Your task to perform on an android device: Set the phone to "Do not disturb". Image 0: 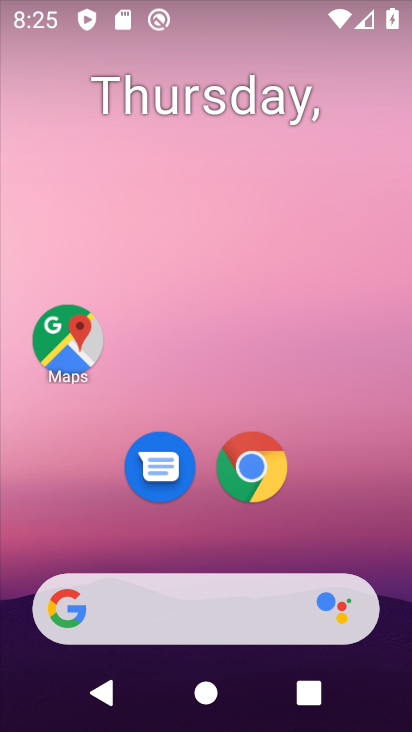
Step 0: drag from (331, 497) to (223, 91)
Your task to perform on an android device: Set the phone to "Do not disturb". Image 1: 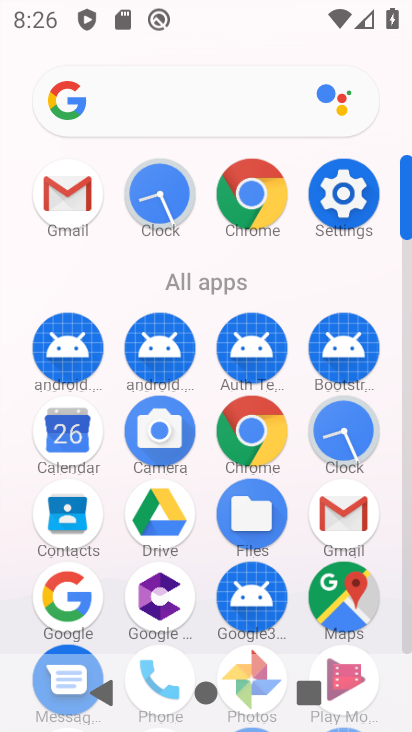
Step 1: click (343, 193)
Your task to perform on an android device: Set the phone to "Do not disturb". Image 2: 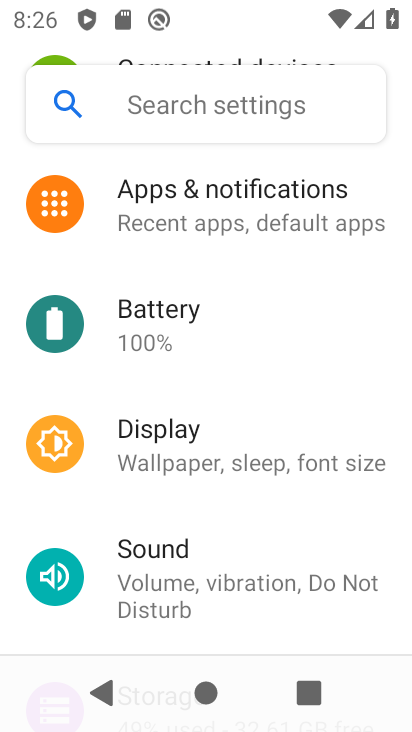
Step 2: drag from (267, 503) to (234, 277)
Your task to perform on an android device: Set the phone to "Do not disturb". Image 3: 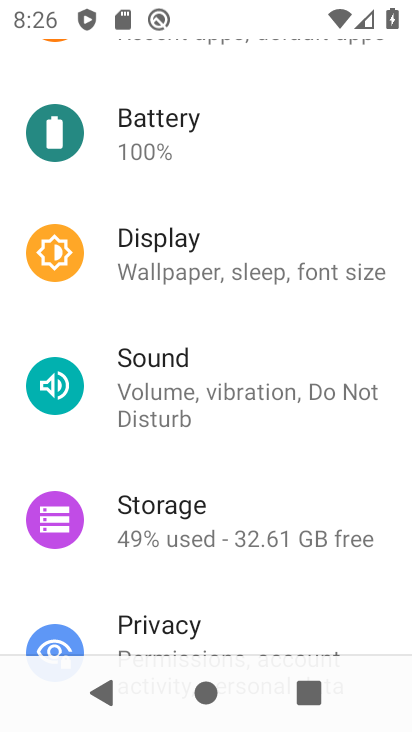
Step 3: click (141, 353)
Your task to perform on an android device: Set the phone to "Do not disturb". Image 4: 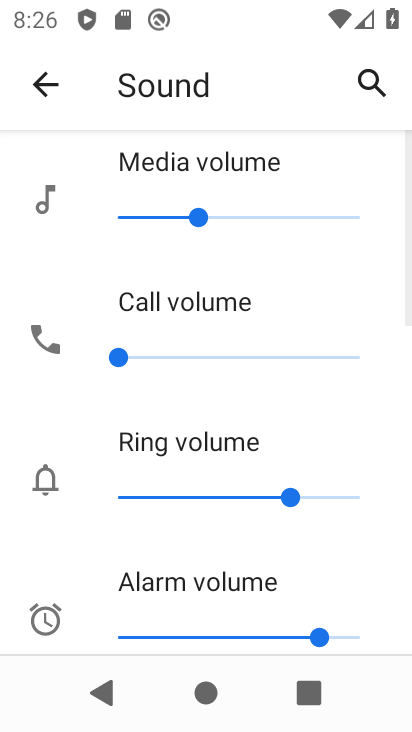
Step 4: drag from (186, 442) to (142, 175)
Your task to perform on an android device: Set the phone to "Do not disturb". Image 5: 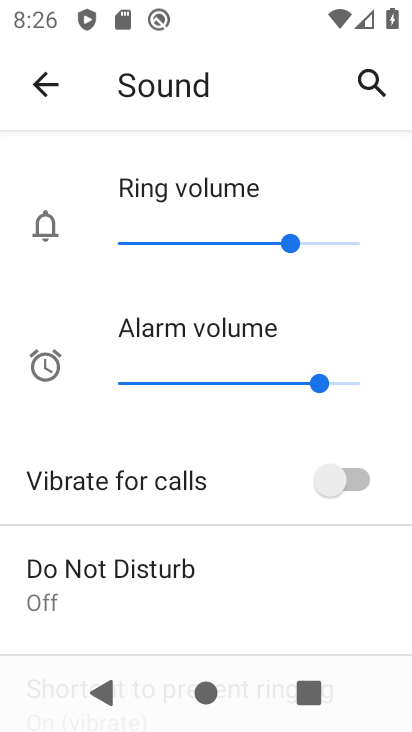
Step 5: click (150, 561)
Your task to perform on an android device: Set the phone to "Do not disturb". Image 6: 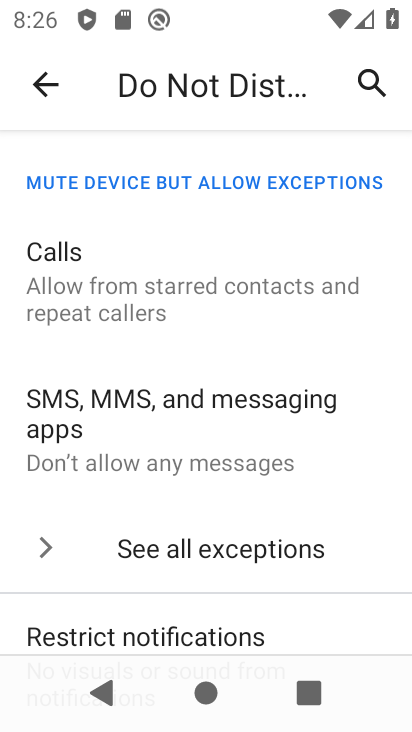
Step 6: drag from (264, 611) to (168, 150)
Your task to perform on an android device: Set the phone to "Do not disturb". Image 7: 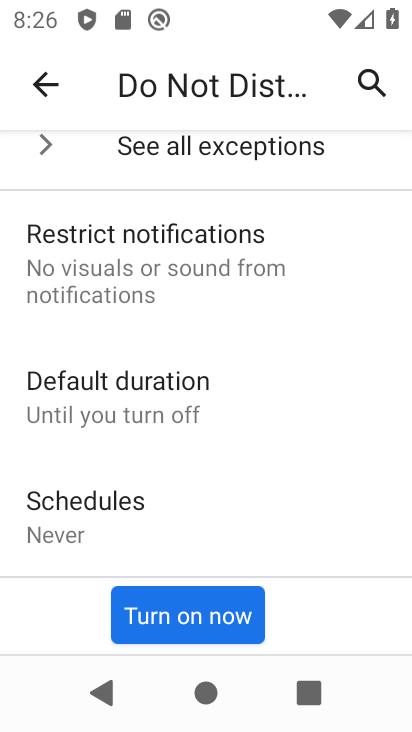
Step 7: click (187, 620)
Your task to perform on an android device: Set the phone to "Do not disturb". Image 8: 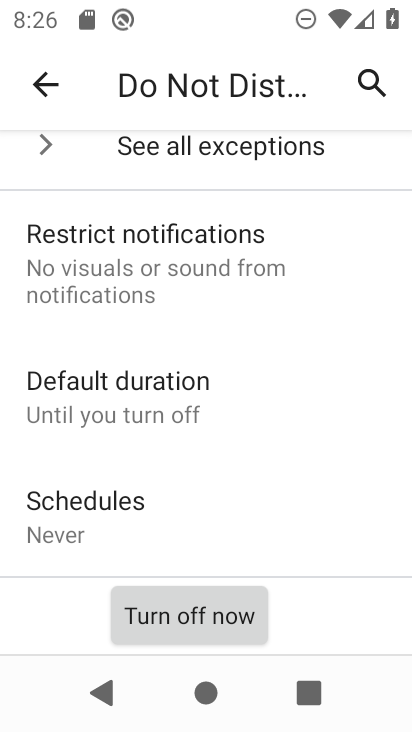
Step 8: task complete